Your task to perform on an android device: Is it going to rain this weekend? Image 0: 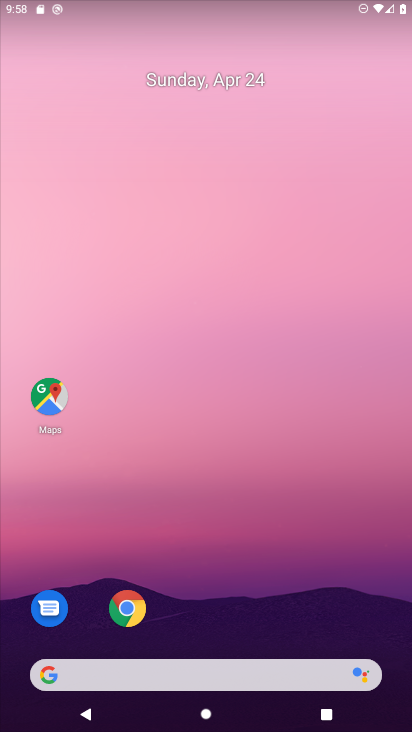
Step 0: drag from (245, 691) to (214, 125)
Your task to perform on an android device: Is it going to rain this weekend? Image 1: 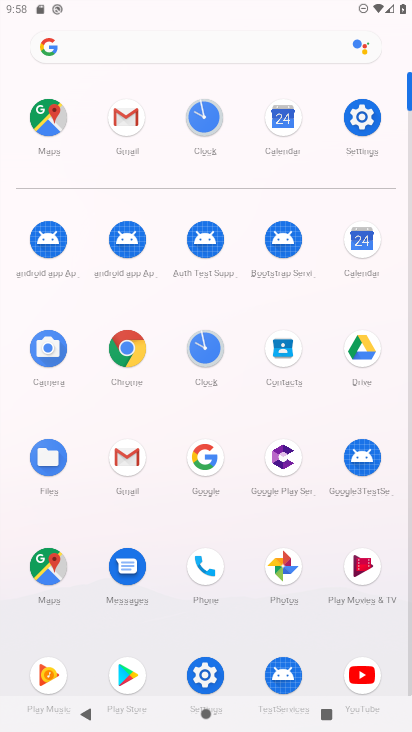
Step 1: click (166, 50)
Your task to perform on an android device: Is it going to rain this weekend? Image 2: 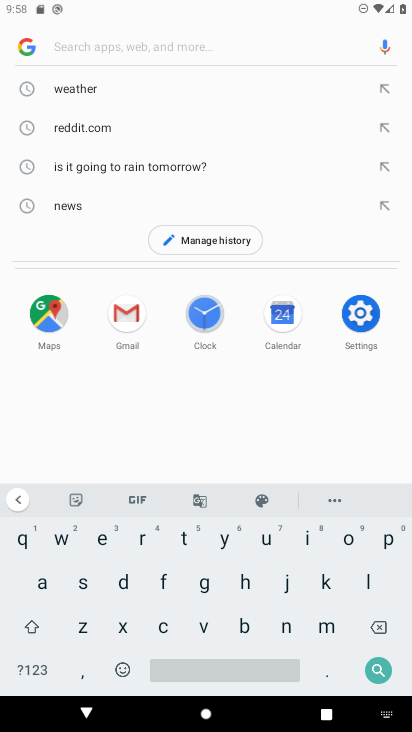
Step 2: click (112, 87)
Your task to perform on an android device: Is it going to rain this weekend? Image 3: 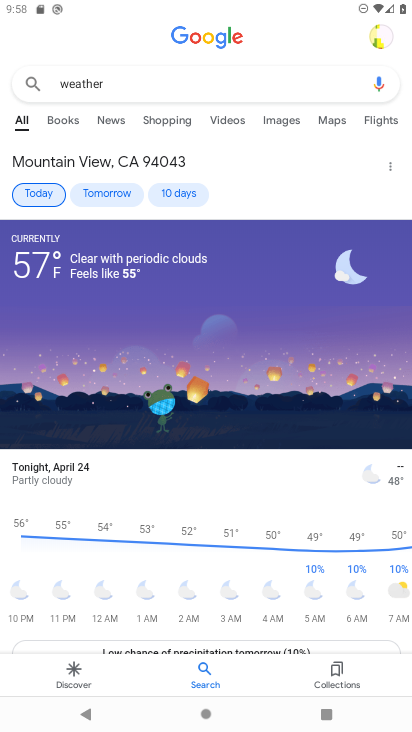
Step 3: click (174, 188)
Your task to perform on an android device: Is it going to rain this weekend? Image 4: 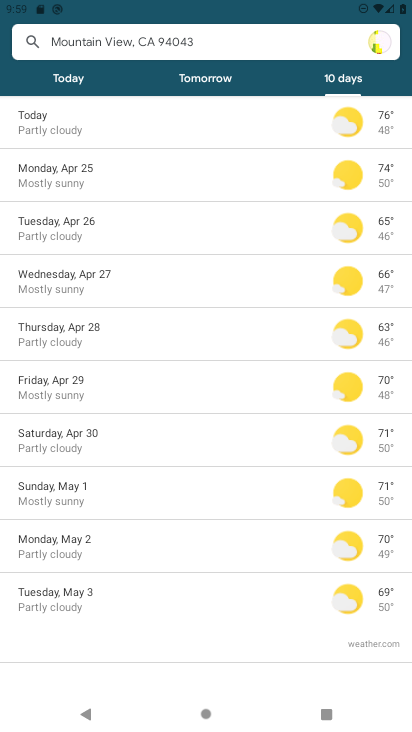
Step 4: task complete